Your task to perform on an android device: What is the recent news? Image 0: 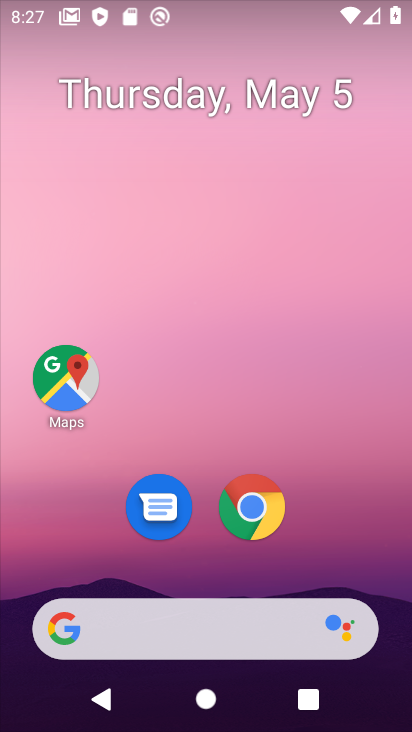
Step 0: drag from (352, 556) to (348, 37)
Your task to perform on an android device: What is the recent news? Image 1: 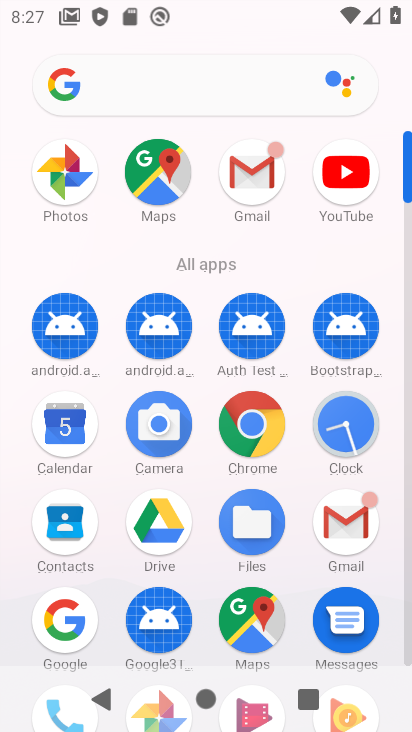
Step 1: task complete